Your task to perform on an android device: turn on airplane mode Image 0: 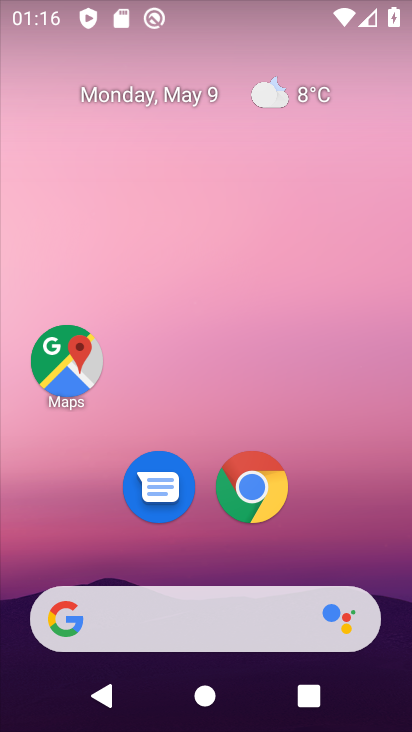
Step 0: drag from (333, 12) to (318, 473)
Your task to perform on an android device: turn on airplane mode Image 1: 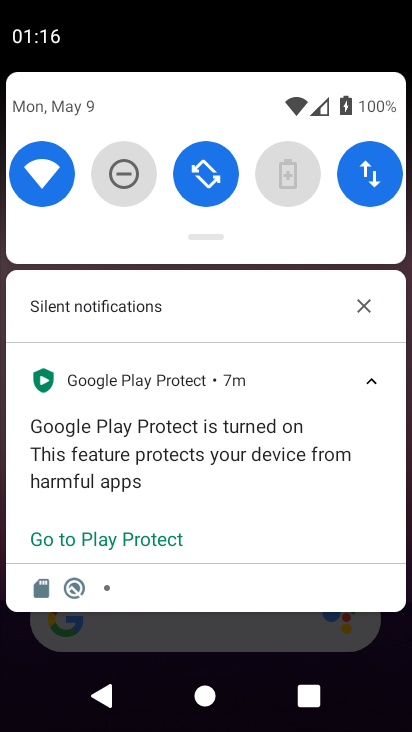
Step 1: drag from (334, 233) to (318, 654)
Your task to perform on an android device: turn on airplane mode Image 2: 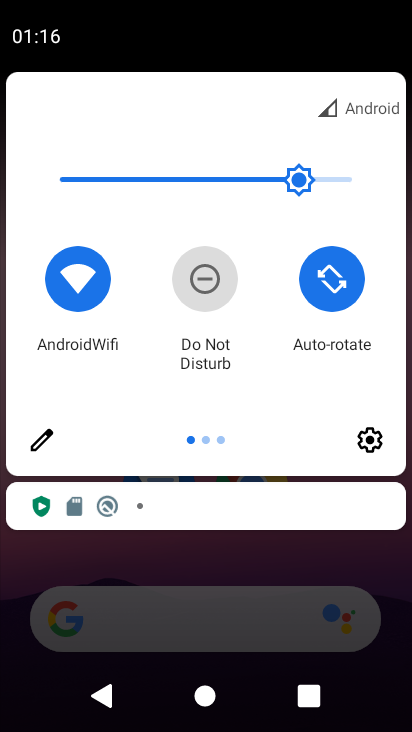
Step 2: drag from (363, 357) to (158, 335)
Your task to perform on an android device: turn on airplane mode Image 3: 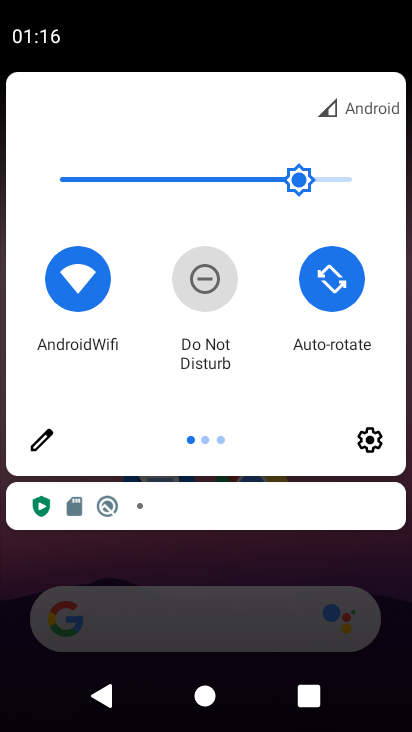
Step 3: drag from (367, 373) to (22, 298)
Your task to perform on an android device: turn on airplane mode Image 4: 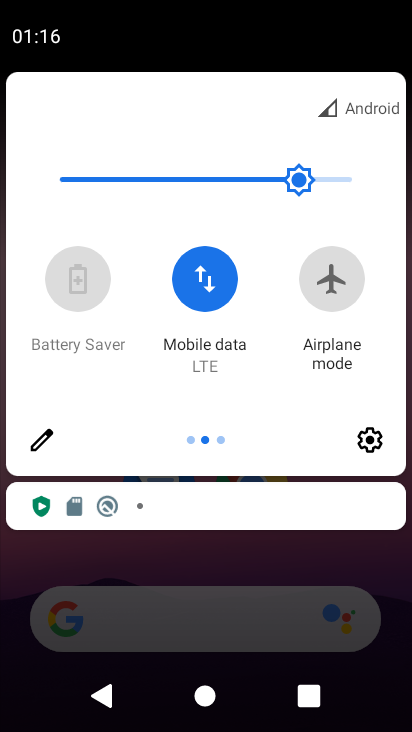
Step 4: click (327, 265)
Your task to perform on an android device: turn on airplane mode Image 5: 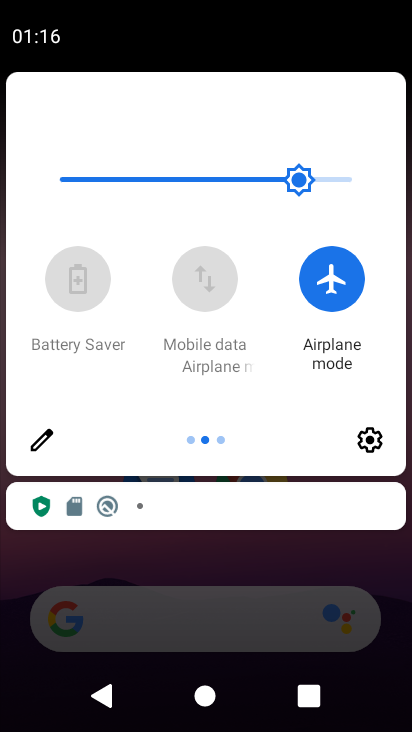
Step 5: task complete